Your task to perform on an android device: check google app version Image 0: 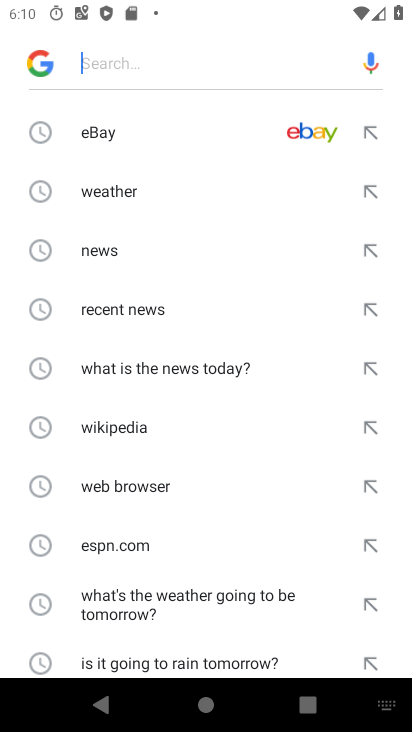
Step 0: press home button
Your task to perform on an android device: check google app version Image 1: 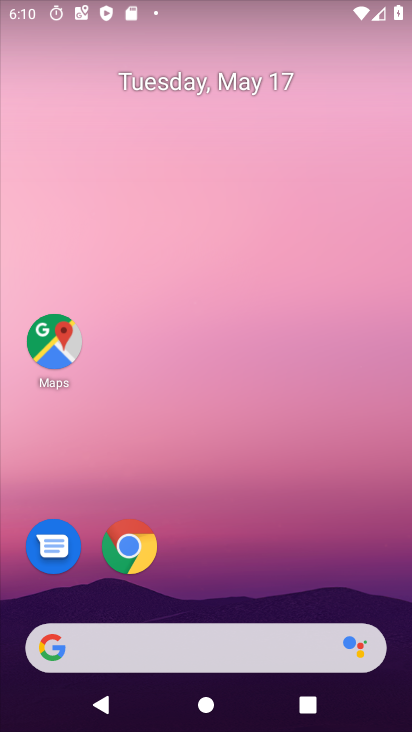
Step 1: drag from (208, 365) to (226, 174)
Your task to perform on an android device: check google app version Image 2: 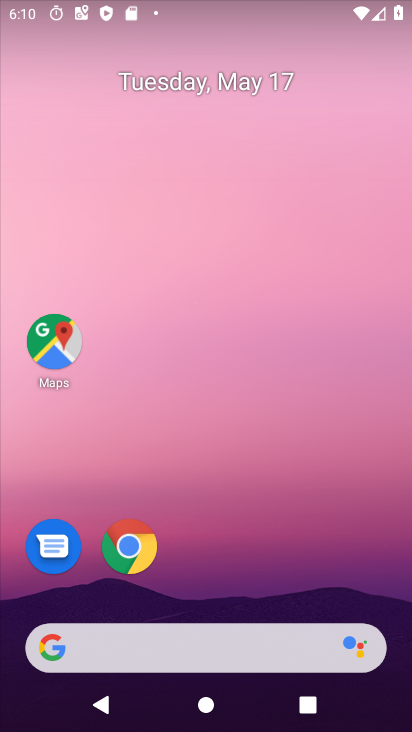
Step 2: click (58, 651)
Your task to perform on an android device: check google app version Image 3: 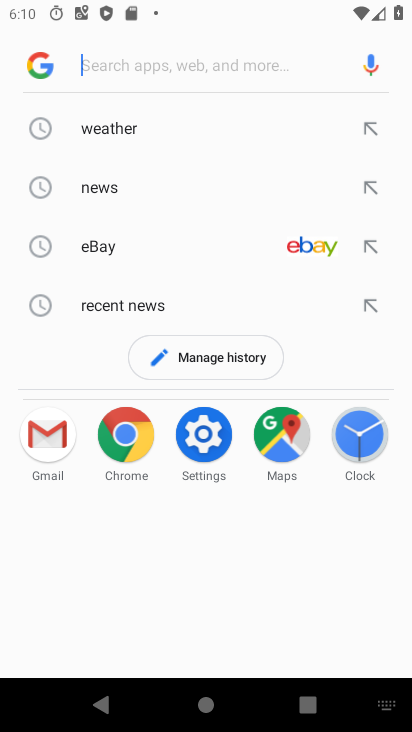
Step 3: click (202, 435)
Your task to perform on an android device: check google app version Image 4: 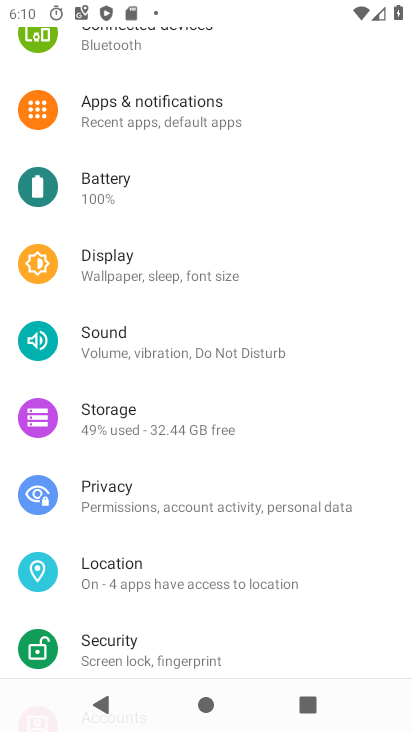
Step 4: press back button
Your task to perform on an android device: check google app version Image 5: 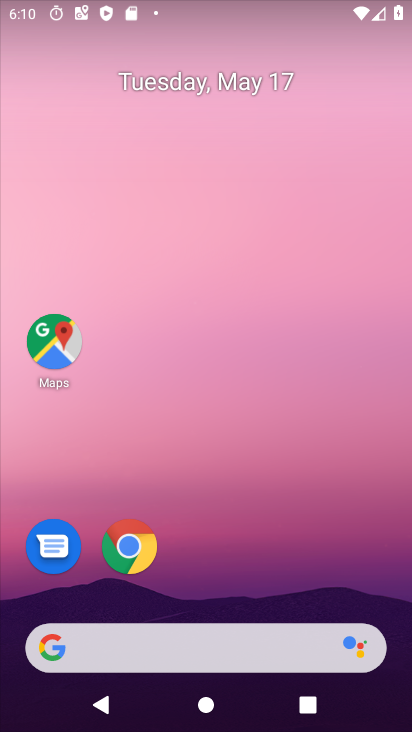
Step 5: click (51, 651)
Your task to perform on an android device: check google app version Image 6: 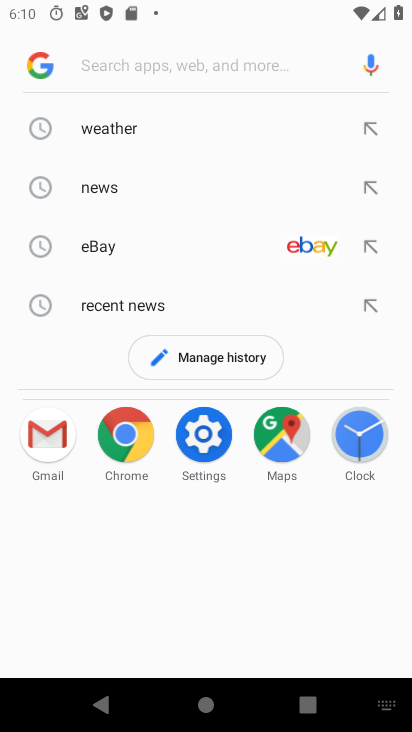
Step 6: click (42, 68)
Your task to perform on an android device: check google app version Image 7: 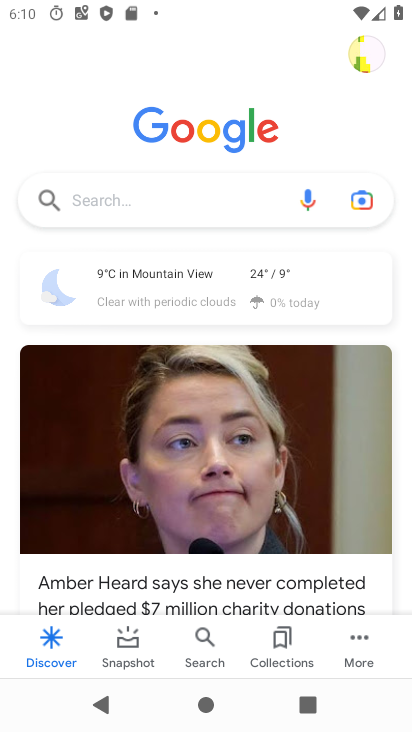
Step 7: click (348, 649)
Your task to perform on an android device: check google app version Image 8: 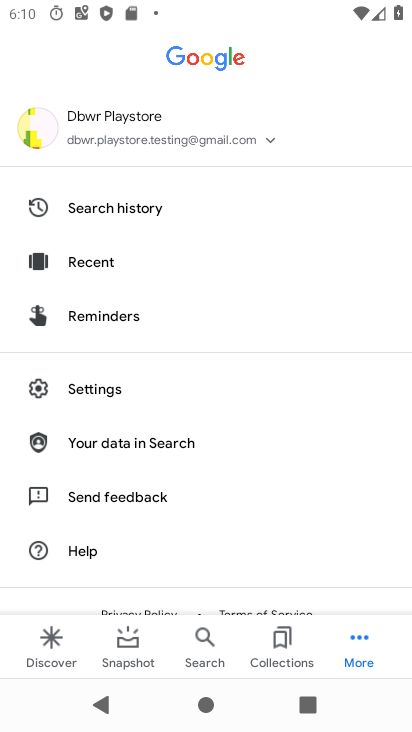
Step 8: click (86, 397)
Your task to perform on an android device: check google app version Image 9: 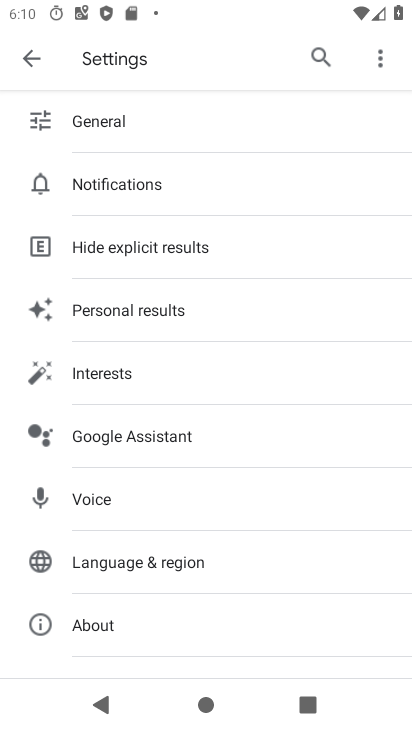
Step 9: click (86, 622)
Your task to perform on an android device: check google app version Image 10: 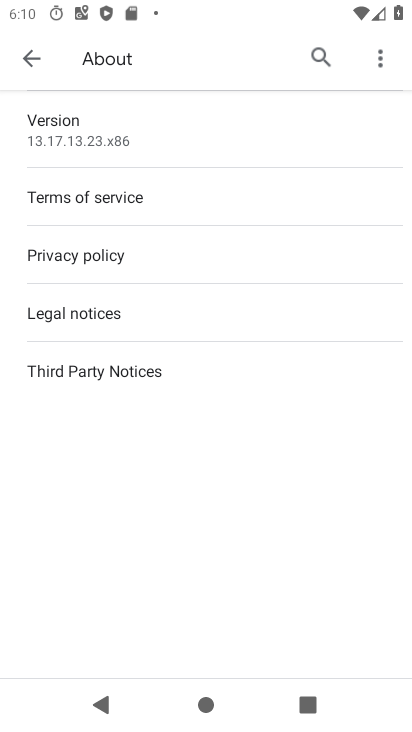
Step 10: task complete